Your task to perform on an android device: toggle translation in the chrome app Image 0: 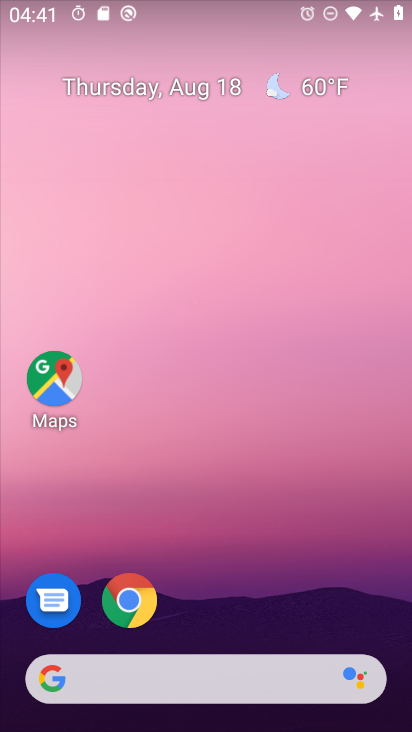
Step 0: press home button
Your task to perform on an android device: toggle translation in the chrome app Image 1: 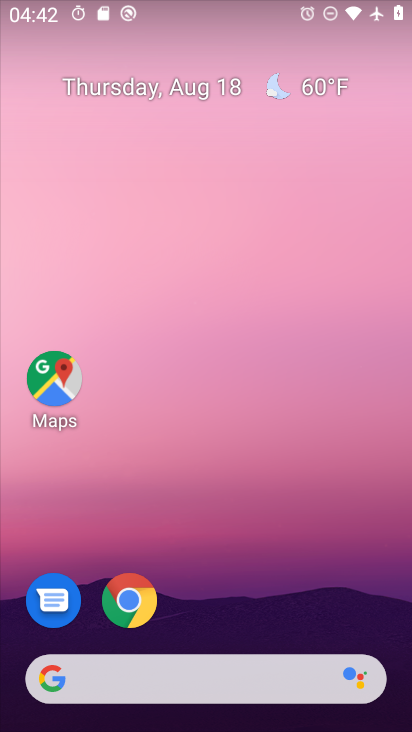
Step 1: click (122, 598)
Your task to perform on an android device: toggle translation in the chrome app Image 2: 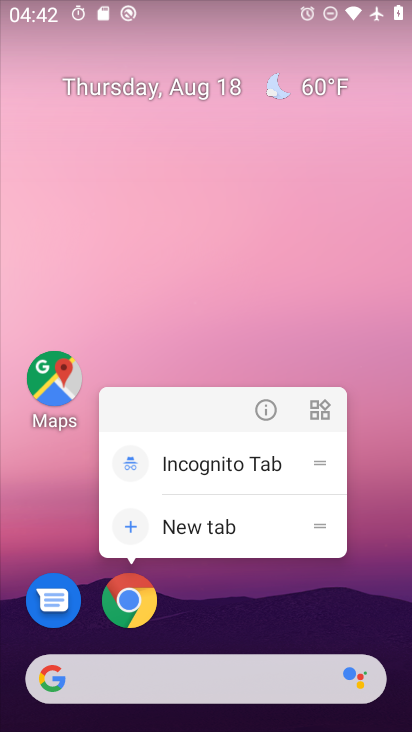
Step 2: click (129, 601)
Your task to perform on an android device: toggle translation in the chrome app Image 3: 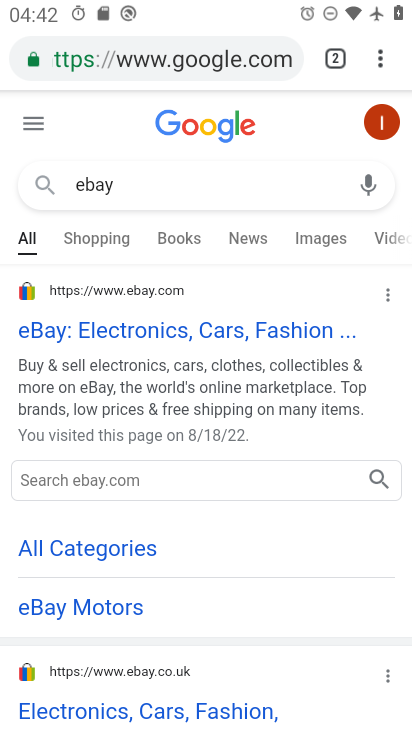
Step 3: drag from (379, 56) to (173, 657)
Your task to perform on an android device: toggle translation in the chrome app Image 4: 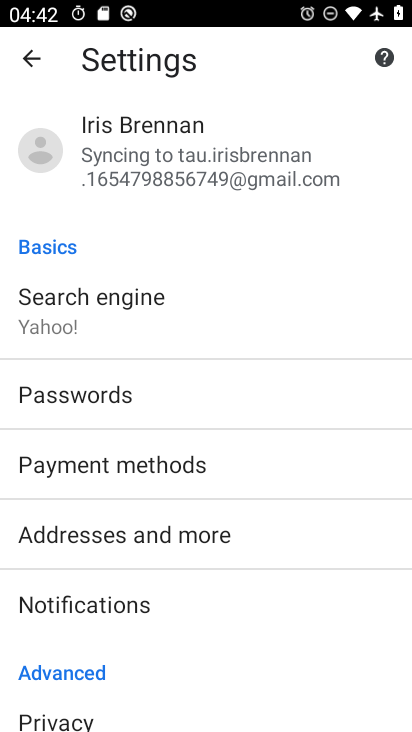
Step 4: drag from (284, 688) to (312, 153)
Your task to perform on an android device: toggle translation in the chrome app Image 5: 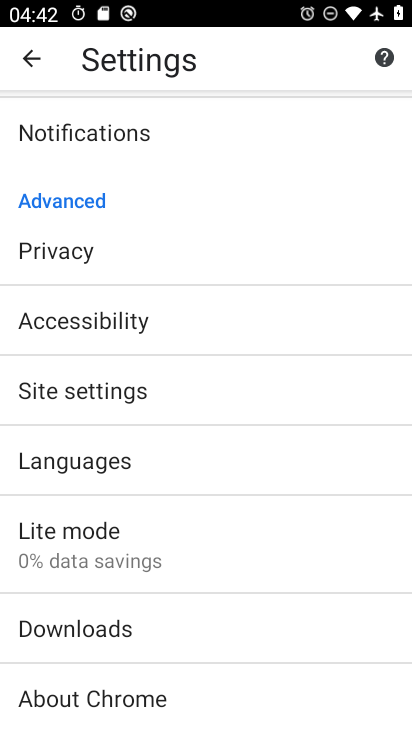
Step 5: drag from (279, 670) to (295, 301)
Your task to perform on an android device: toggle translation in the chrome app Image 6: 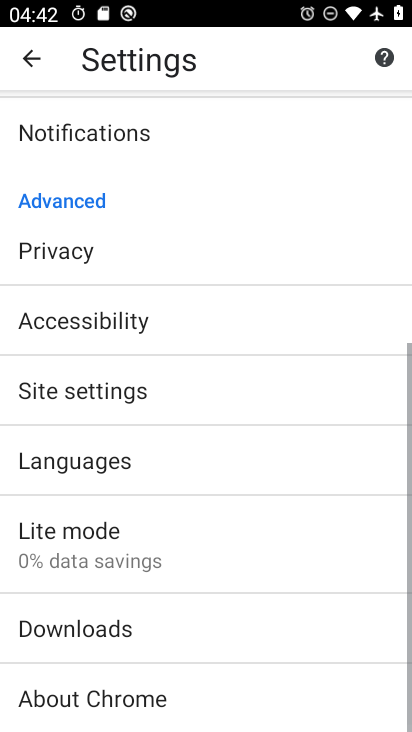
Step 6: click (89, 460)
Your task to perform on an android device: toggle translation in the chrome app Image 7: 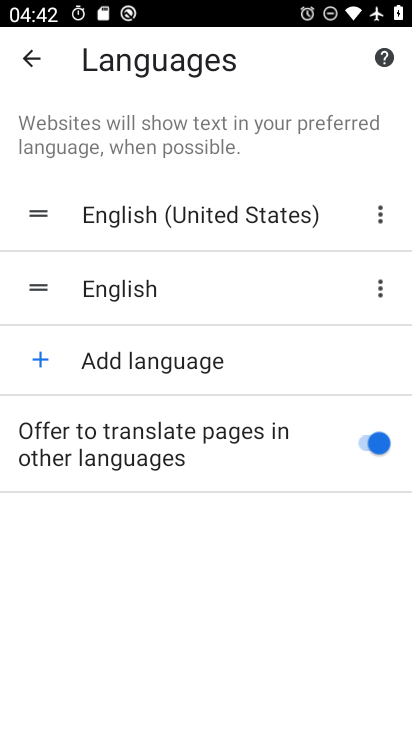
Step 7: click (381, 446)
Your task to perform on an android device: toggle translation in the chrome app Image 8: 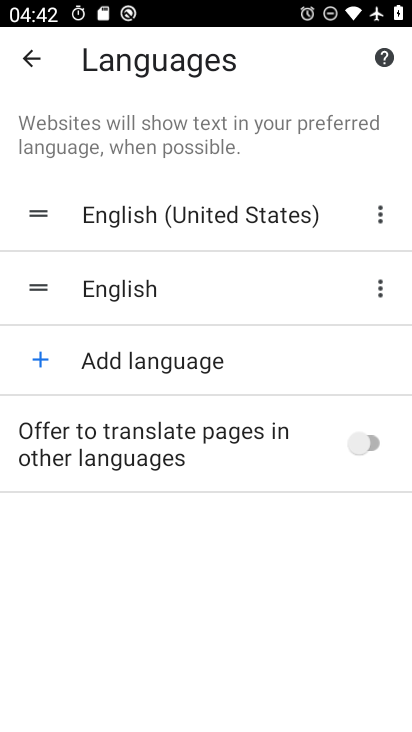
Step 8: task complete